Your task to perform on an android device: check storage Image 0: 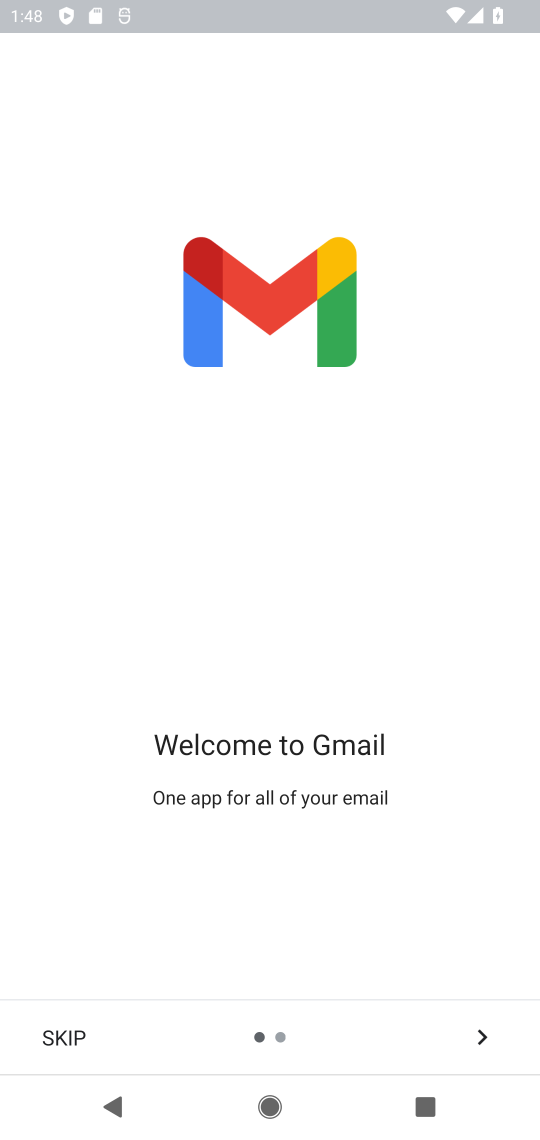
Step 0: press home button
Your task to perform on an android device: check storage Image 1: 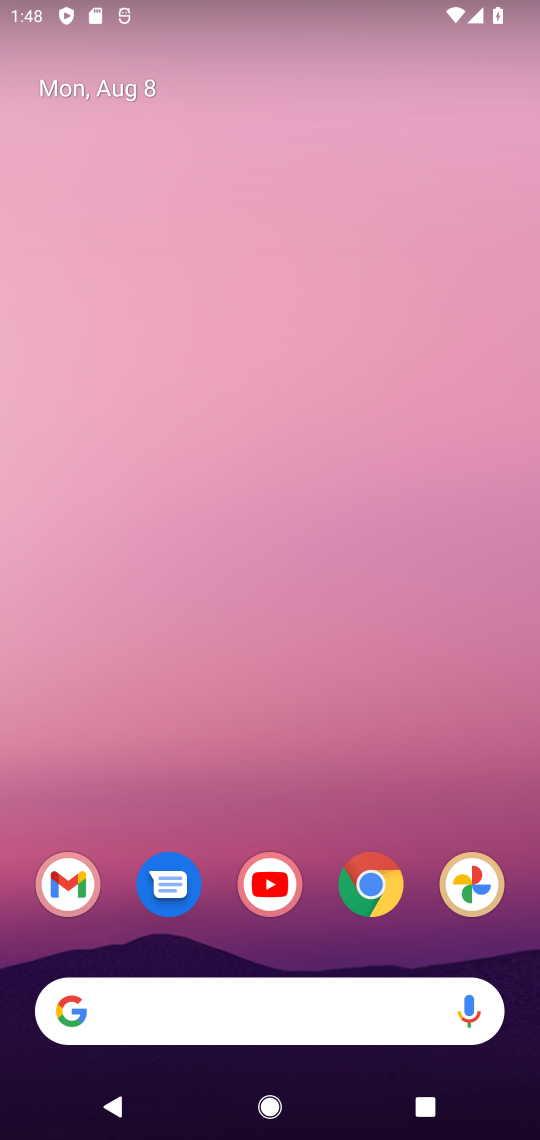
Step 1: drag from (296, 785) to (280, 291)
Your task to perform on an android device: check storage Image 2: 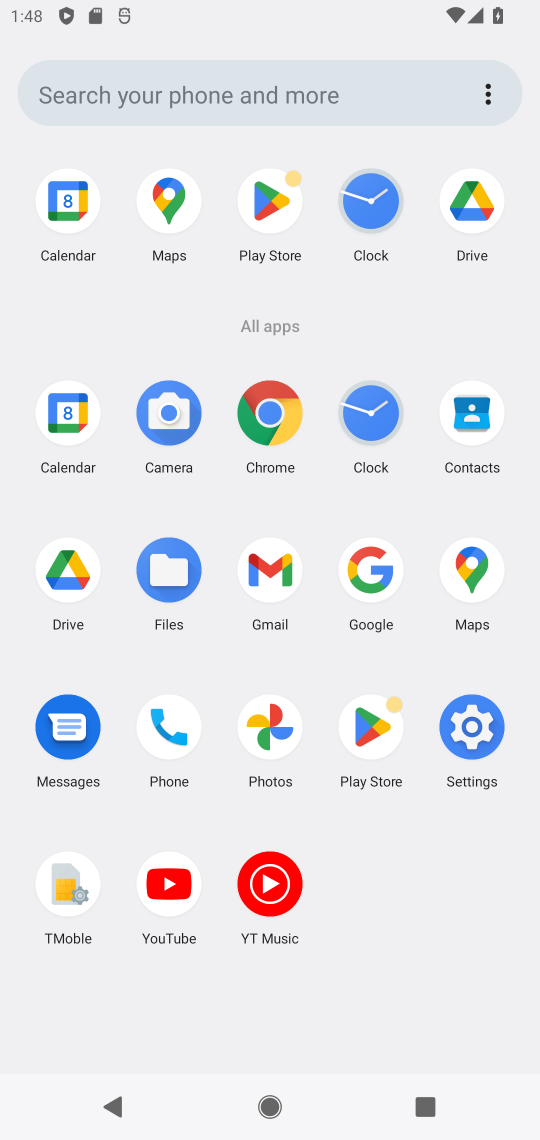
Step 2: click (470, 726)
Your task to perform on an android device: check storage Image 3: 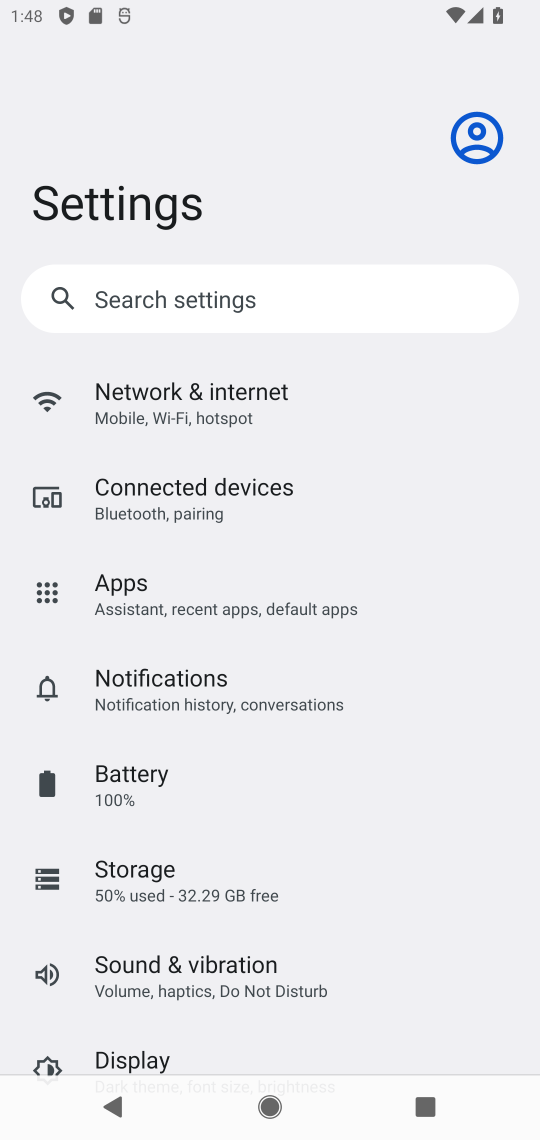
Step 3: click (103, 861)
Your task to perform on an android device: check storage Image 4: 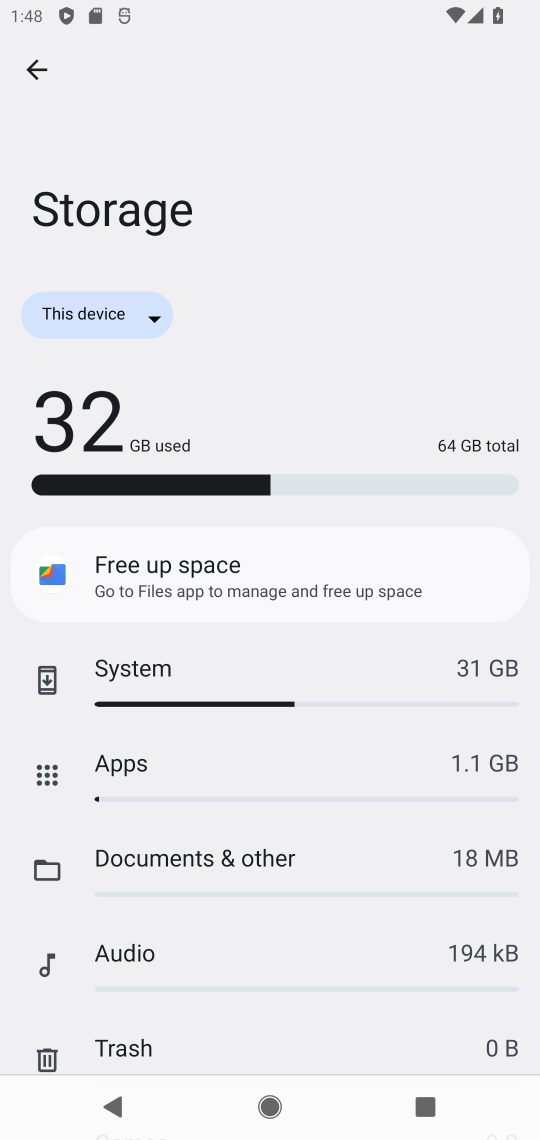
Step 4: task complete